Your task to perform on an android device: Go to calendar. Show me events next week Image 0: 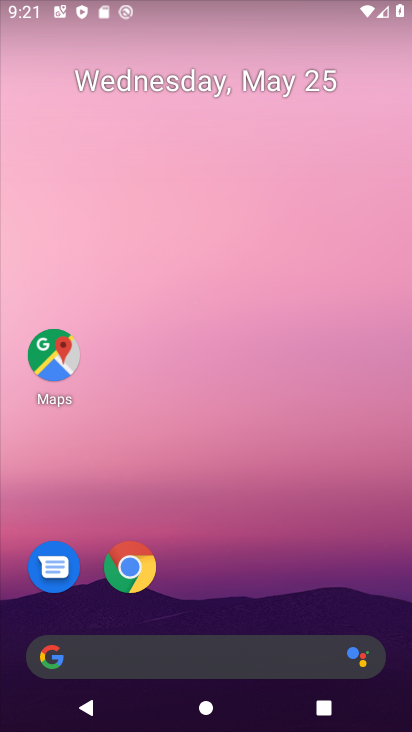
Step 0: drag from (277, 579) to (215, 35)
Your task to perform on an android device: Go to calendar. Show me events next week Image 1: 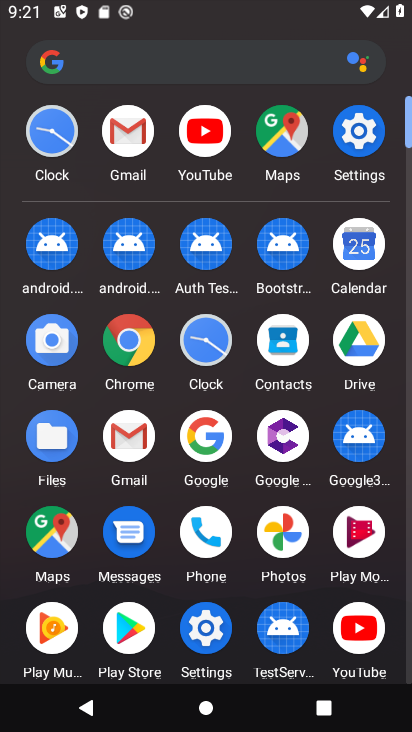
Step 1: click (357, 243)
Your task to perform on an android device: Go to calendar. Show me events next week Image 2: 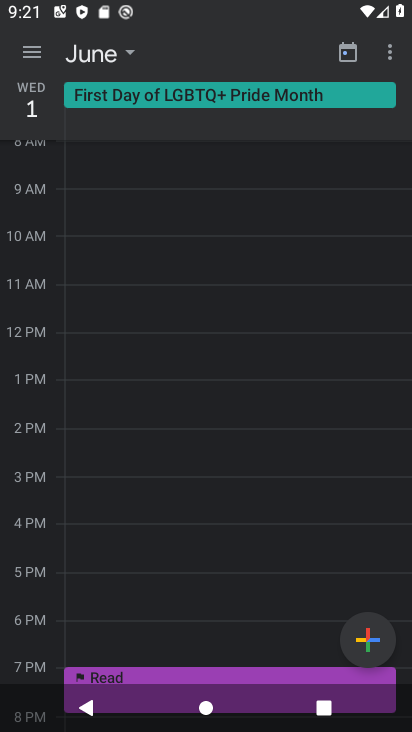
Step 2: task complete